Your task to perform on an android device: Go to calendar. Show me events next week Image 0: 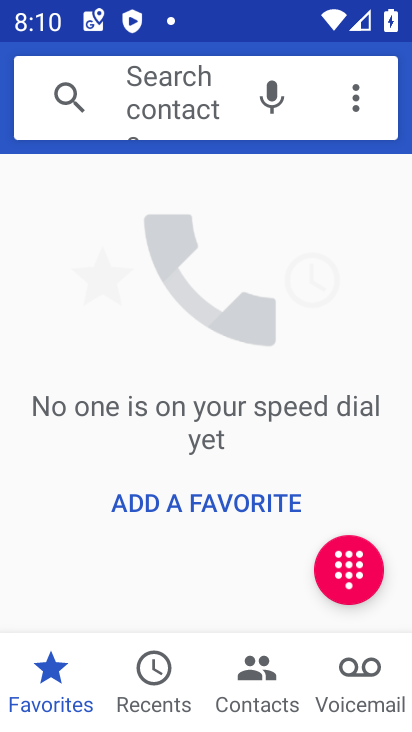
Step 0: press home button
Your task to perform on an android device: Go to calendar. Show me events next week Image 1: 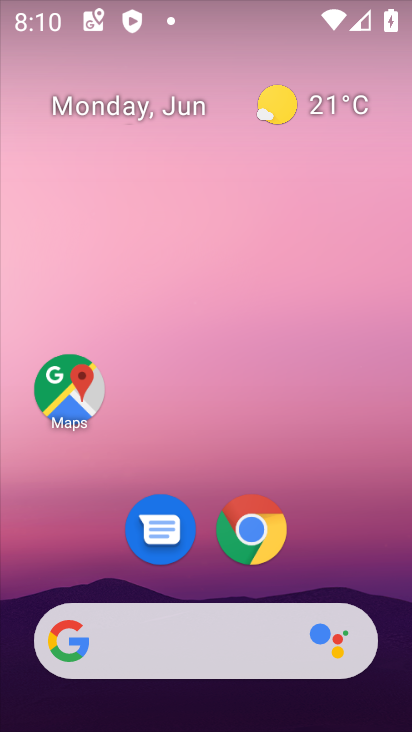
Step 1: drag from (14, 648) to (274, 243)
Your task to perform on an android device: Go to calendar. Show me events next week Image 2: 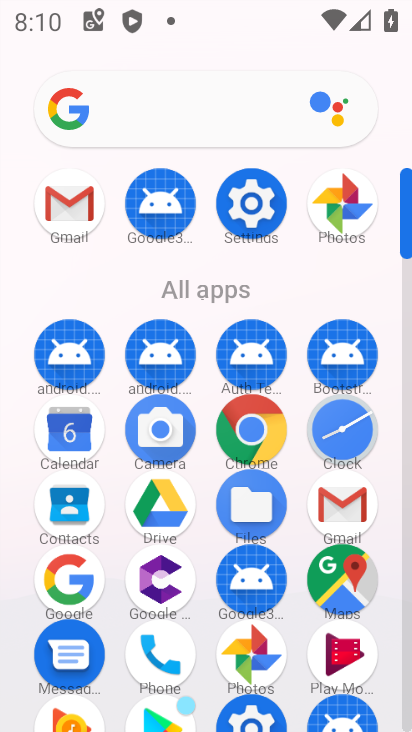
Step 2: click (81, 422)
Your task to perform on an android device: Go to calendar. Show me events next week Image 3: 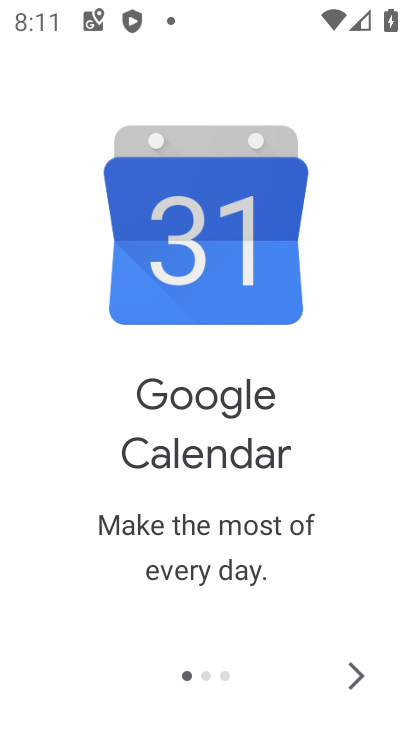
Step 3: click (356, 670)
Your task to perform on an android device: Go to calendar. Show me events next week Image 4: 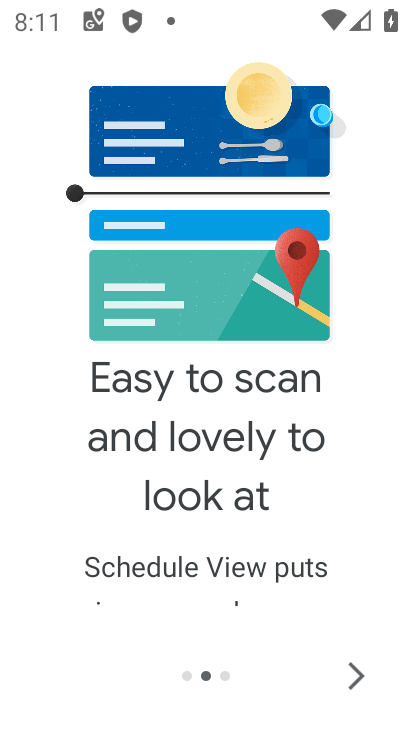
Step 4: click (356, 669)
Your task to perform on an android device: Go to calendar. Show me events next week Image 5: 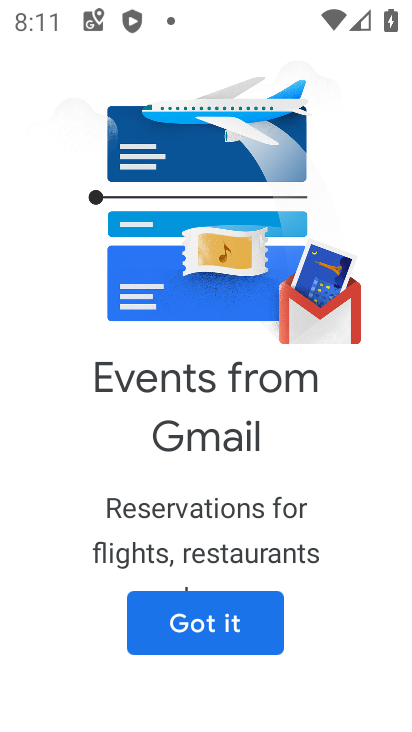
Step 5: click (242, 632)
Your task to perform on an android device: Go to calendar. Show me events next week Image 6: 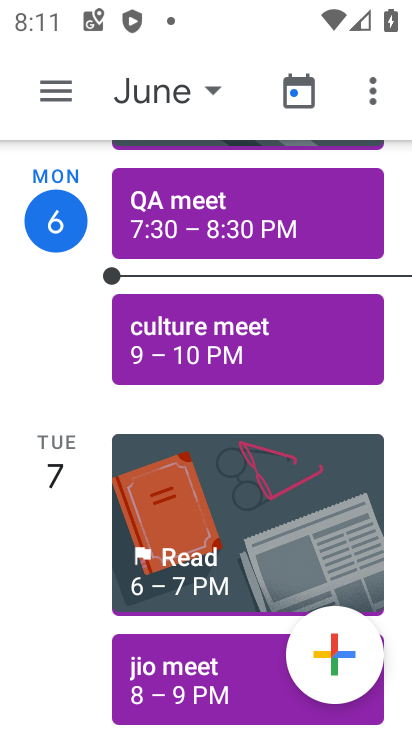
Step 6: click (136, 88)
Your task to perform on an android device: Go to calendar. Show me events next week Image 7: 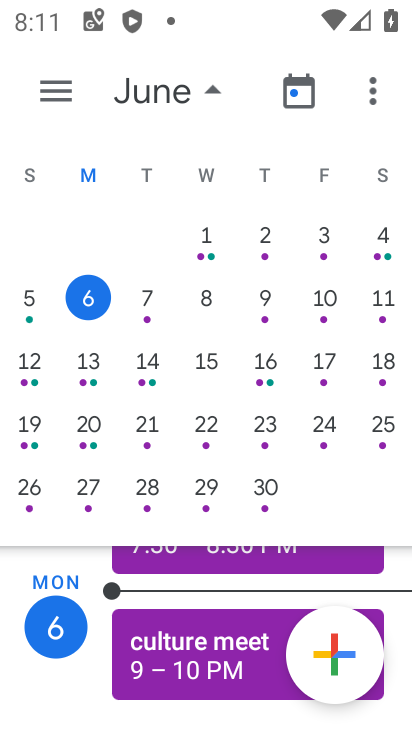
Step 7: click (95, 374)
Your task to perform on an android device: Go to calendar. Show me events next week Image 8: 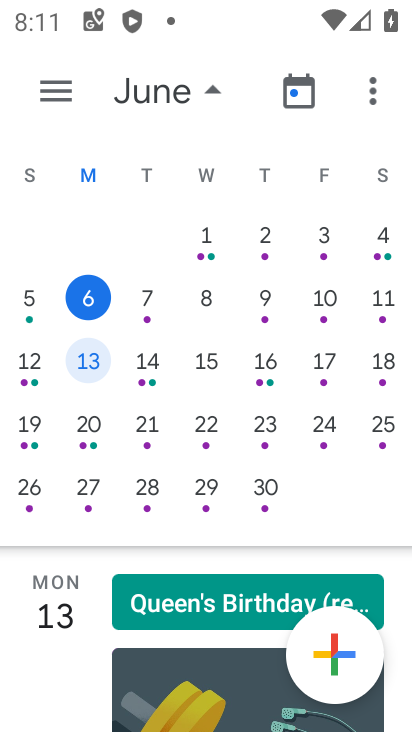
Step 8: click (159, 377)
Your task to perform on an android device: Go to calendar. Show me events next week Image 9: 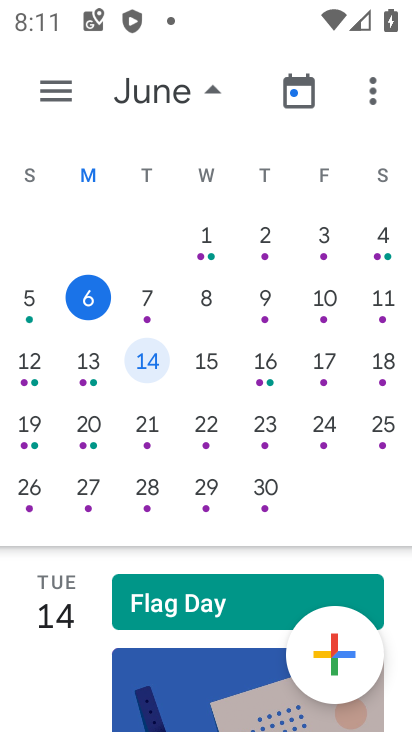
Step 9: click (210, 376)
Your task to perform on an android device: Go to calendar. Show me events next week Image 10: 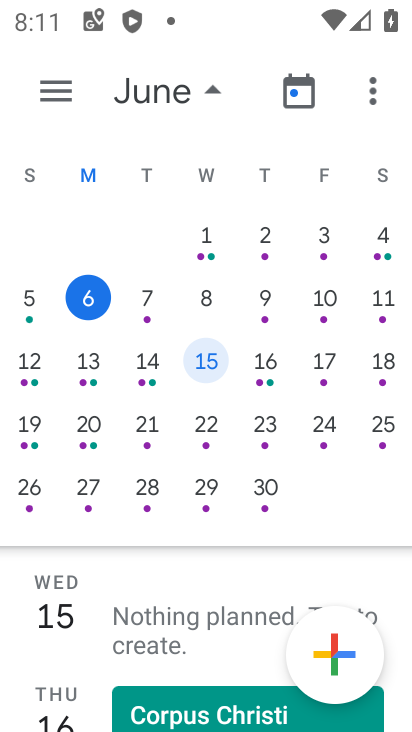
Step 10: click (273, 360)
Your task to perform on an android device: Go to calendar. Show me events next week Image 11: 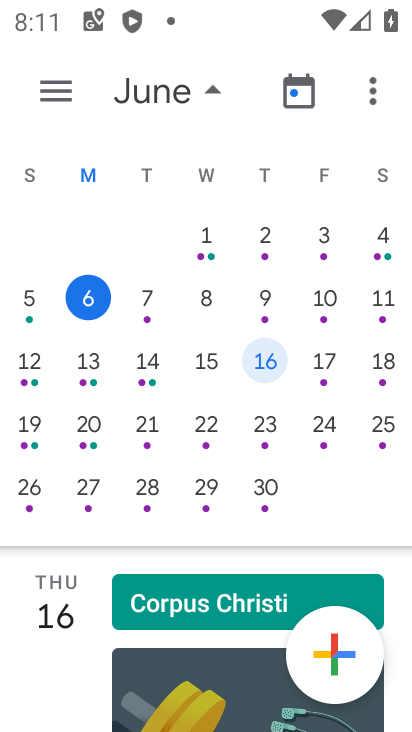
Step 11: click (324, 355)
Your task to perform on an android device: Go to calendar. Show me events next week Image 12: 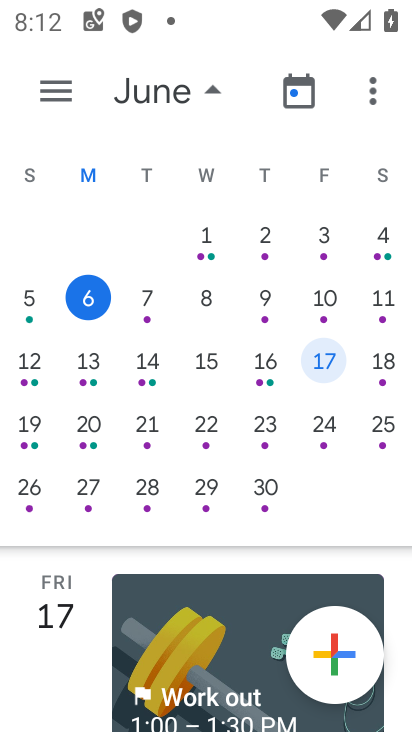
Step 12: task complete